Your task to perform on an android device: Show me popular games on the Play Store Image 0: 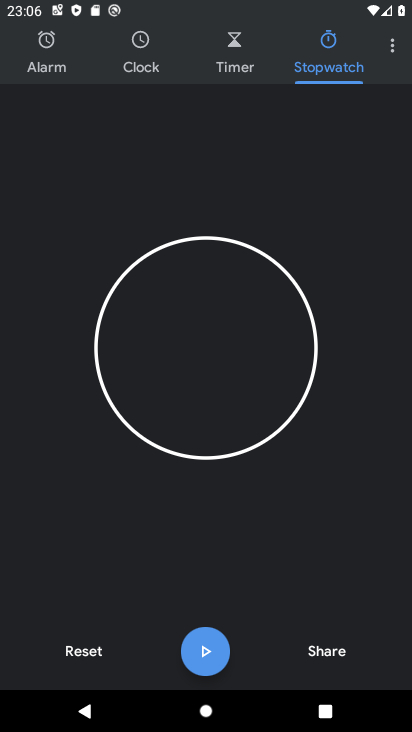
Step 0: press home button
Your task to perform on an android device: Show me popular games on the Play Store Image 1: 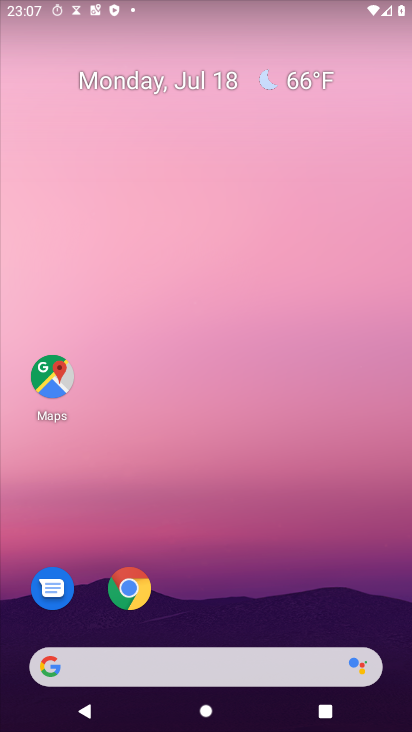
Step 1: drag from (120, 675) to (299, 147)
Your task to perform on an android device: Show me popular games on the Play Store Image 2: 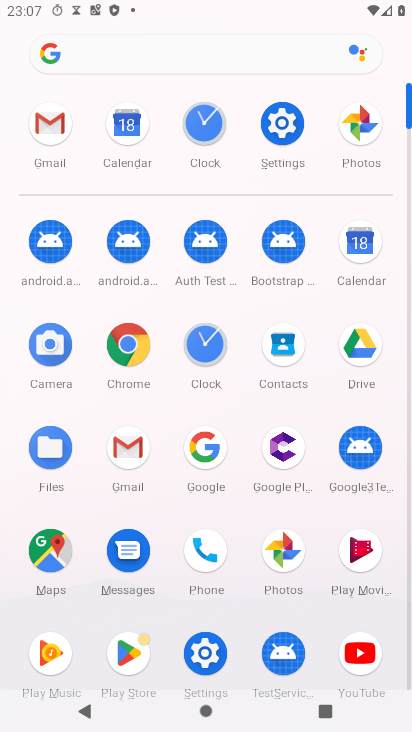
Step 2: click (129, 644)
Your task to perform on an android device: Show me popular games on the Play Store Image 3: 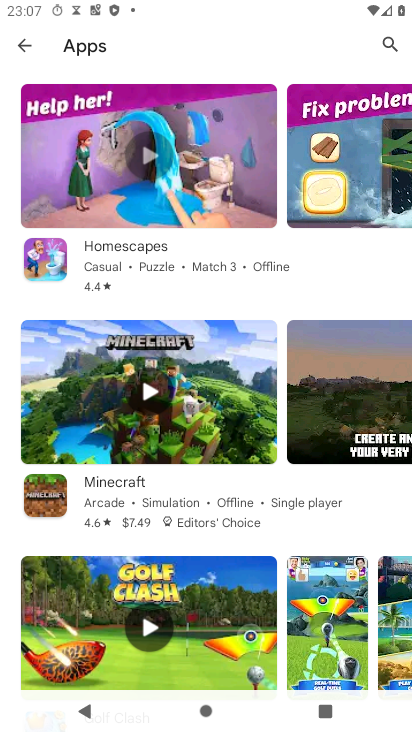
Step 3: click (25, 38)
Your task to perform on an android device: Show me popular games on the Play Store Image 4: 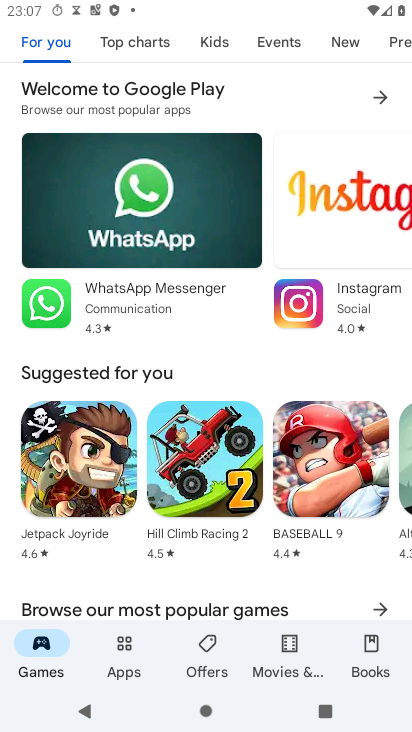
Step 4: click (383, 602)
Your task to perform on an android device: Show me popular games on the Play Store Image 5: 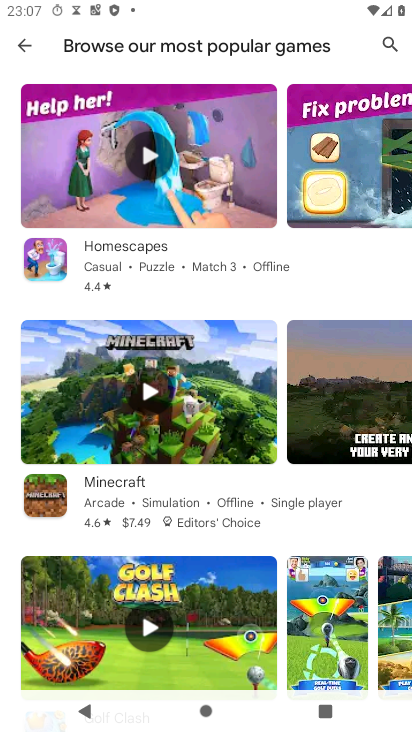
Step 5: task complete